Your task to perform on an android device: Go to Reddit.com Image 0: 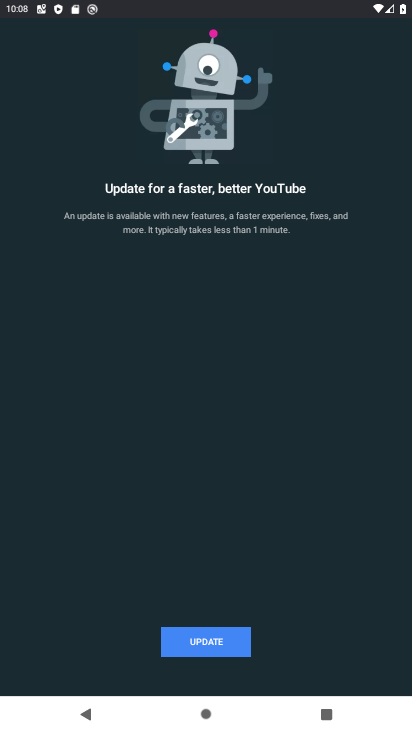
Step 0: press home button
Your task to perform on an android device: Go to Reddit.com Image 1: 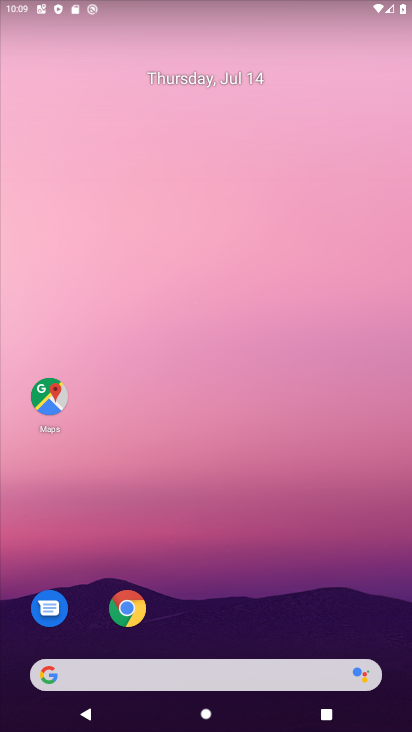
Step 1: drag from (188, 565) to (158, 73)
Your task to perform on an android device: Go to Reddit.com Image 2: 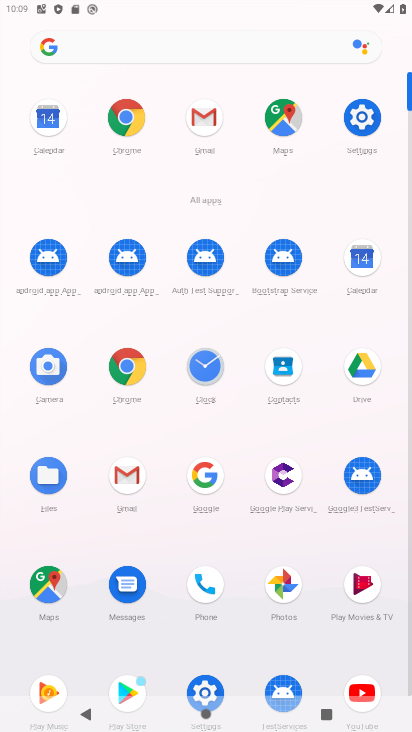
Step 2: click (129, 123)
Your task to perform on an android device: Go to Reddit.com Image 3: 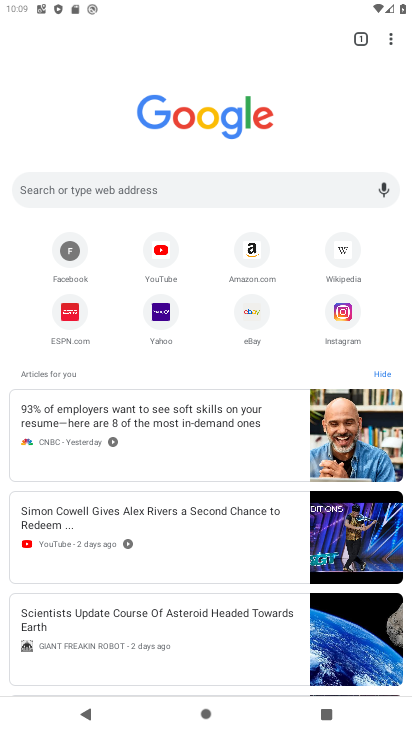
Step 3: click (230, 203)
Your task to perform on an android device: Go to Reddit.com Image 4: 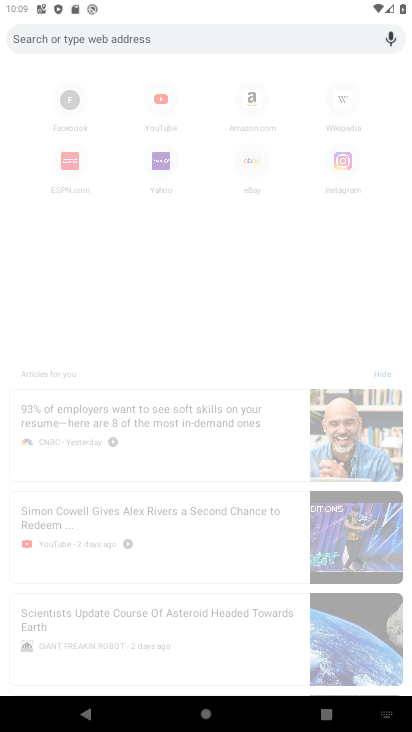
Step 4: type "www.reddit.com"
Your task to perform on an android device: Go to Reddit.com Image 5: 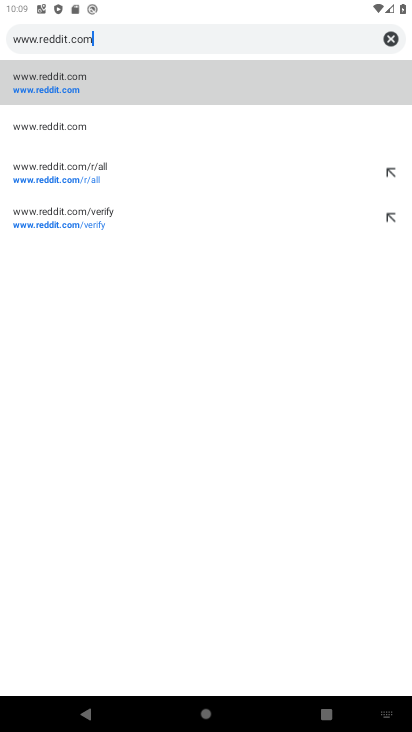
Step 5: click (28, 101)
Your task to perform on an android device: Go to Reddit.com Image 6: 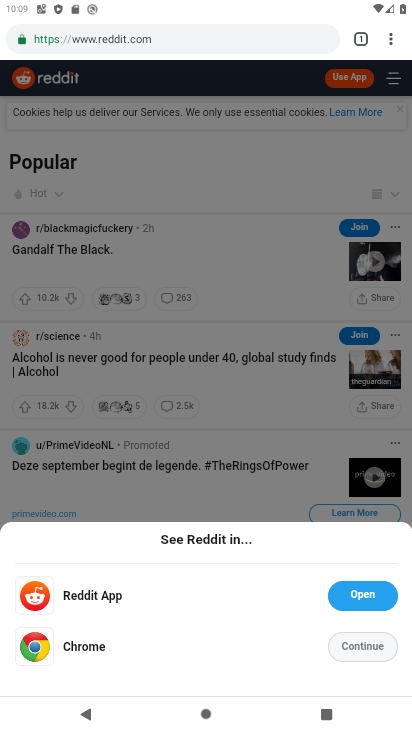
Step 6: click (335, 591)
Your task to perform on an android device: Go to Reddit.com Image 7: 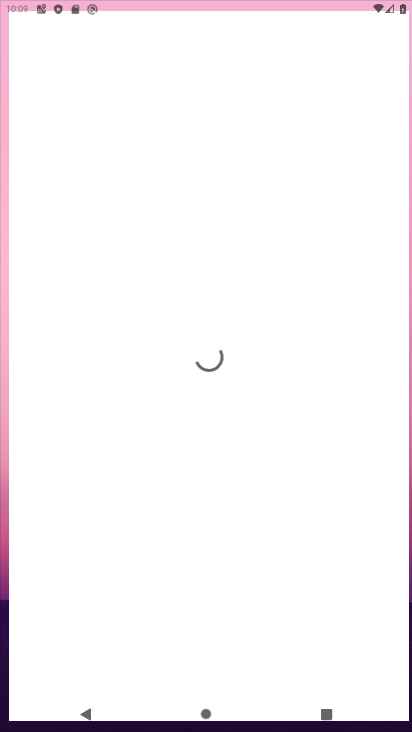
Step 7: task complete